Your task to perform on an android device: turn off picture-in-picture Image 0: 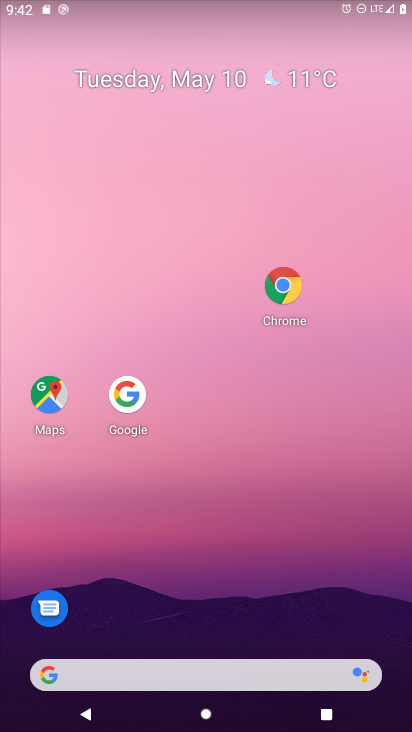
Step 0: click (281, 287)
Your task to perform on an android device: turn off picture-in-picture Image 1: 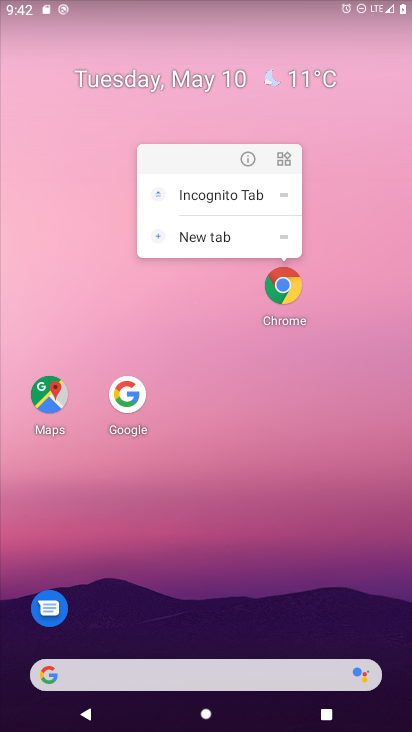
Step 1: click (259, 152)
Your task to perform on an android device: turn off picture-in-picture Image 2: 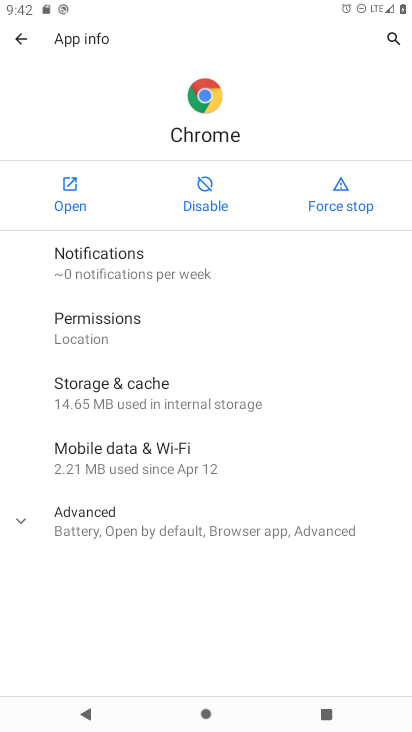
Step 2: click (131, 526)
Your task to perform on an android device: turn off picture-in-picture Image 3: 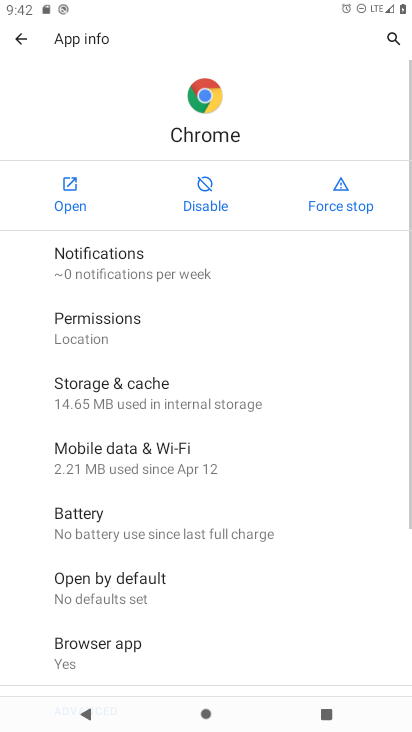
Step 3: drag from (182, 602) to (316, 278)
Your task to perform on an android device: turn off picture-in-picture Image 4: 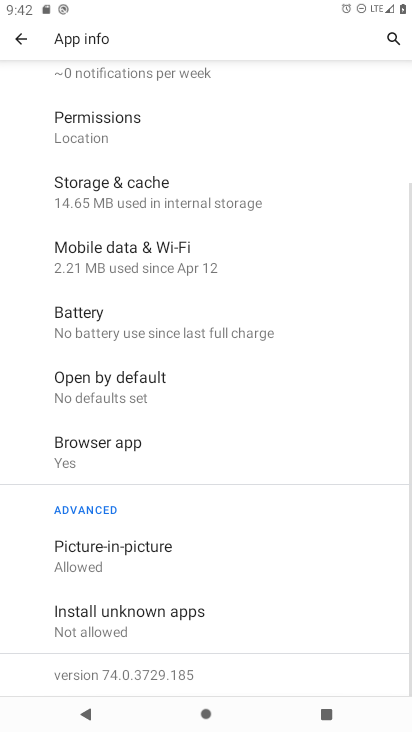
Step 4: click (107, 544)
Your task to perform on an android device: turn off picture-in-picture Image 5: 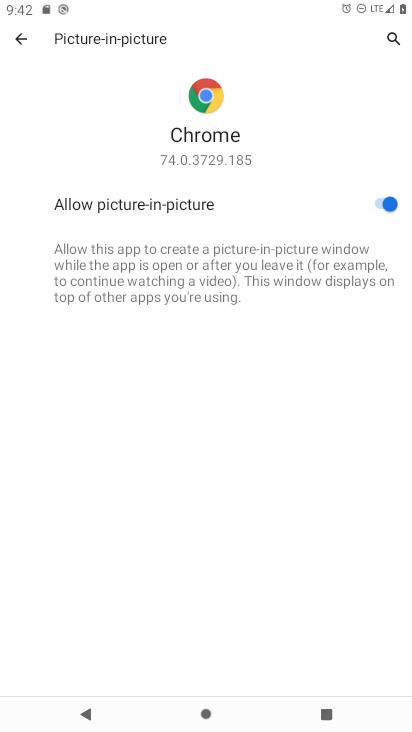
Step 5: click (380, 199)
Your task to perform on an android device: turn off picture-in-picture Image 6: 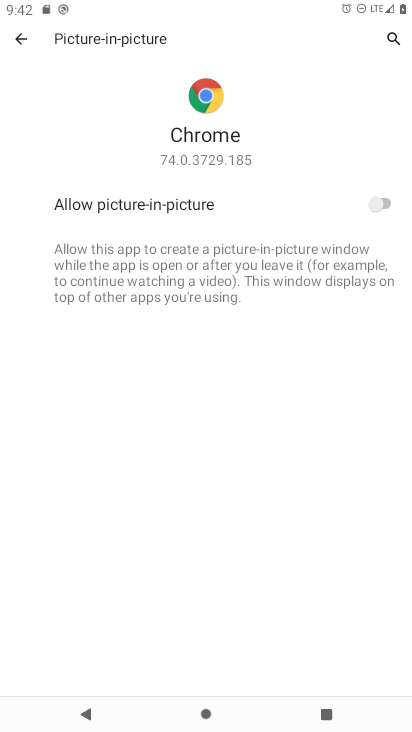
Step 6: task complete